Your task to perform on an android device: Search for the best value 4K TV on Best Buy Image 0: 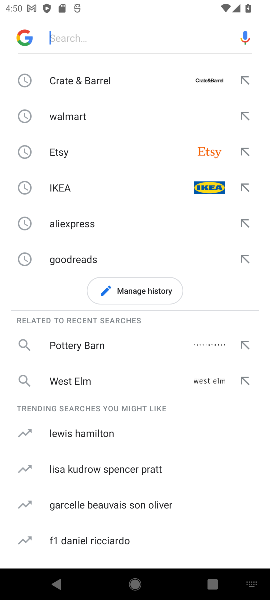
Step 0: click (96, 41)
Your task to perform on an android device: Search for the best value 4K TV on Best Buy Image 1: 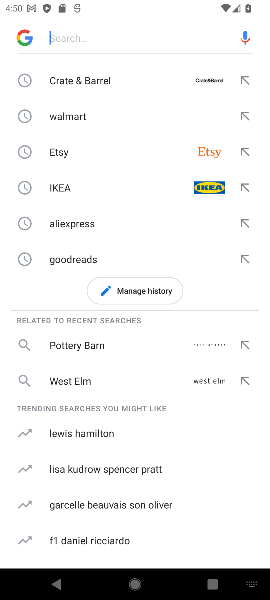
Step 1: type "best buy"
Your task to perform on an android device: Search for the best value 4K TV on Best Buy Image 2: 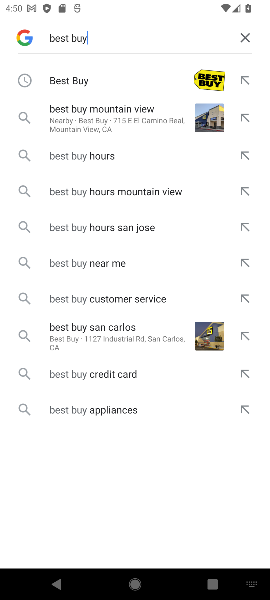
Step 2: click (84, 78)
Your task to perform on an android device: Search for the best value 4K TV on Best Buy Image 3: 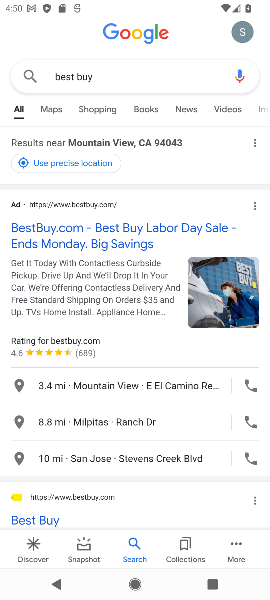
Step 3: drag from (133, 313) to (140, 158)
Your task to perform on an android device: Search for the best value 4K TV on Best Buy Image 4: 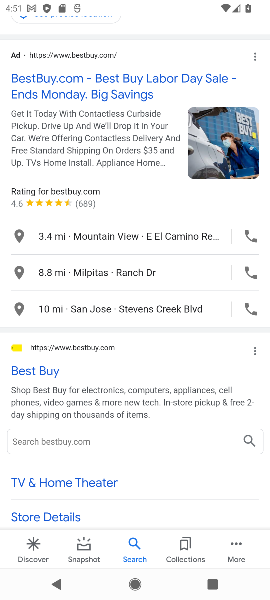
Step 4: click (56, 368)
Your task to perform on an android device: Search for the best value 4K TV on Best Buy Image 5: 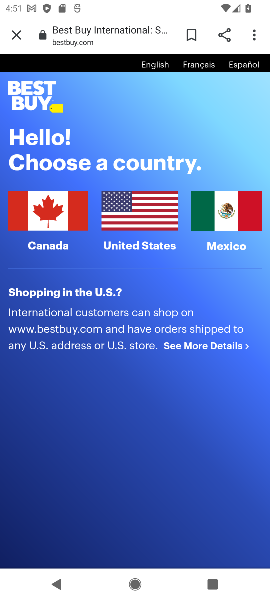
Step 5: click (137, 230)
Your task to perform on an android device: Search for the best value 4K TV on Best Buy Image 6: 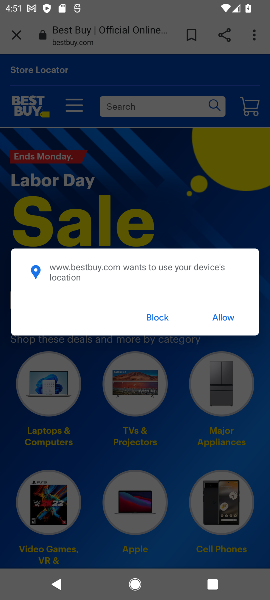
Step 6: click (230, 317)
Your task to perform on an android device: Search for the best value 4K TV on Best Buy Image 7: 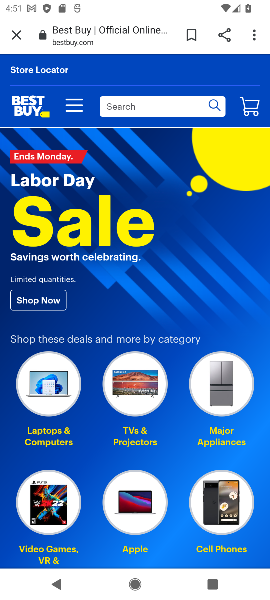
Step 7: click (141, 103)
Your task to perform on an android device: Search for the best value 4K TV on Best Buy Image 8: 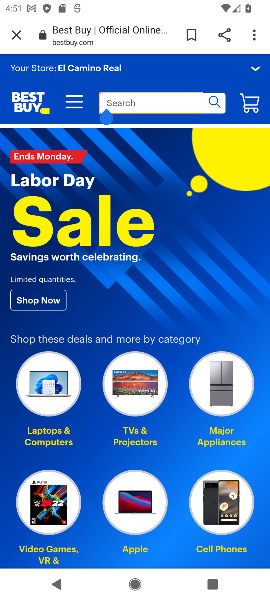
Step 8: type "4k tv"
Your task to perform on an android device: Search for the best value 4K TV on Best Buy Image 9: 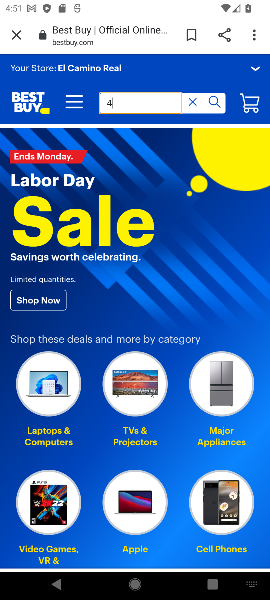
Step 9: type ""
Your task to perform on an android device: Search for the best value 4K TV on Best Buy Image 10: 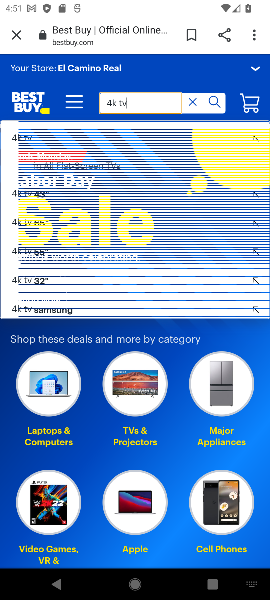
Step 10: press enter
Your task to perform on an android device: Search for the best value 4K TV on Best Buy Image 11: 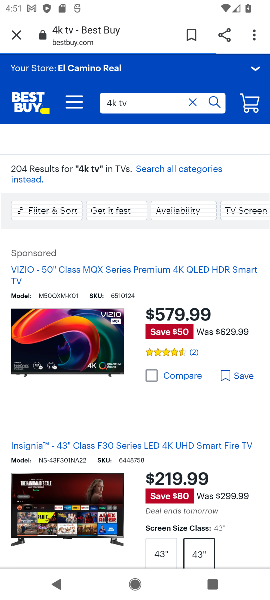
Step 11: click (71, 212)
Your task to perform on an android device: Search for the best value 4K TV on Best Buy Image 12: 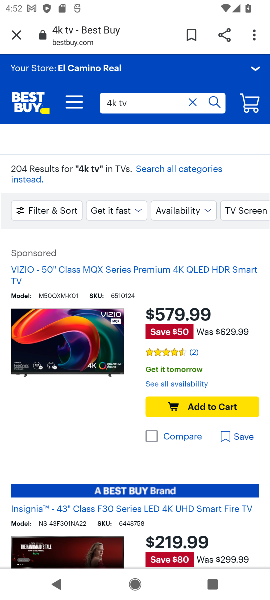
Step 12: click (71, 212)
Your task to perform on an android device: Search for the best value 4K TV on Best Buy Image 13: 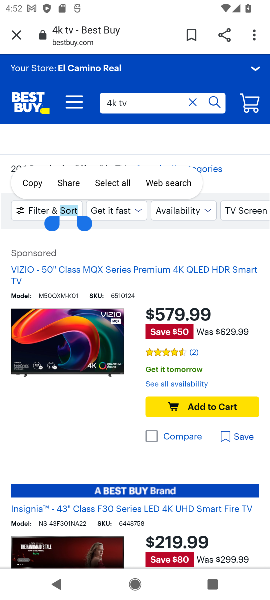
Step 13: click (65, 230)
Your task to perform on an android device: Search for the best value 4K TV on Best Buy Image 14: 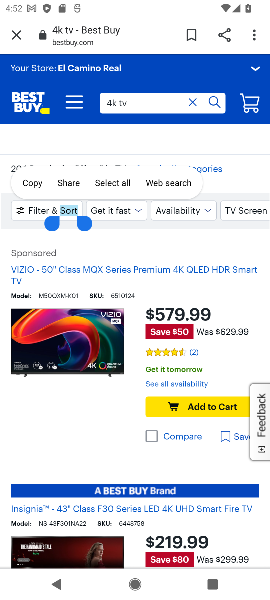
Step 14: click (31, 223)
Your task to perform on an android device: Search for the best value 4K TV on Best Buy Image 15: 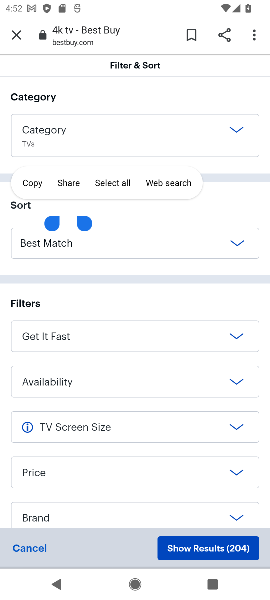
Step 15: click (225, 548)
Your task to perform on an android device: Search for the best value 4K TV on Best Buy Image 16: 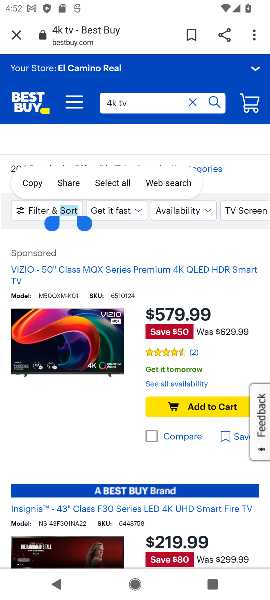
Step 16: click (195, 251)
Your task to perform on an android device: Search for the best value 4K TV on Best Buy Image 17: 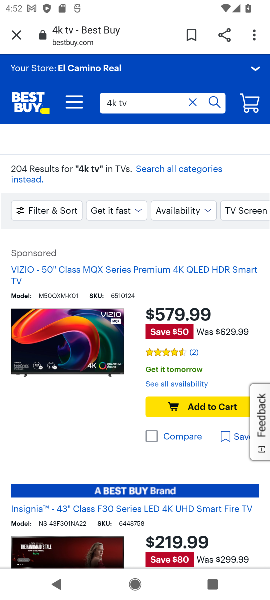
Step 17: drag from (196, 180) to (202, 112)
Your task to perform on an android device: Search for the best value 4K TV on Best Buy Image 18: 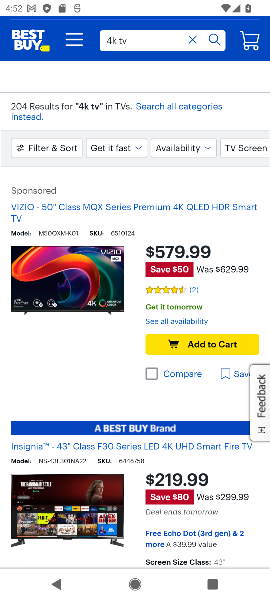
Step 18: drag from (226, 420) to (215, 211)
Your task to perform on an android device: Search for the best value 4K TV on Best Buy Image 19: 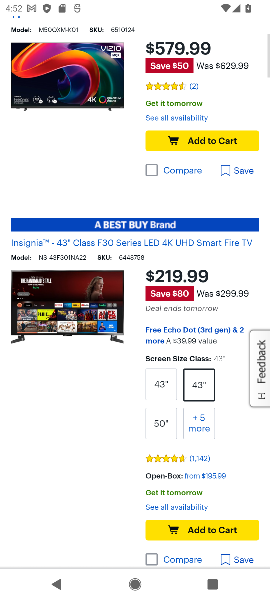
Step 19: drag from (229, 214) to (215, 73)
Your task to perform on an android device: Search for the best value 4K TV on Best Buy Image 20: 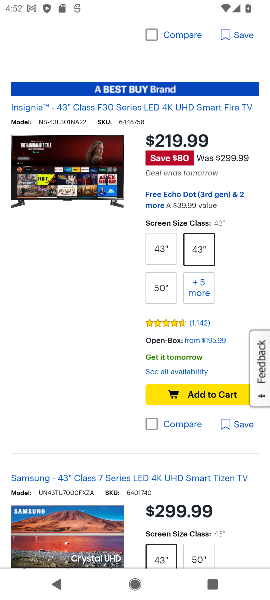
Step 20: drag from (253, 455) to (227, 170)
Your task to perform on an android device: Search for the best value 4K TV on Best Buy Image 21: 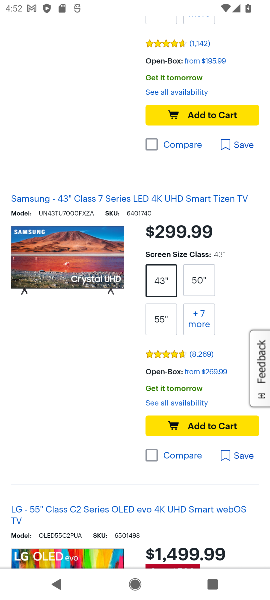
Step 21: drag from (24, 182) to (31, 109)
Your task to perform on an android device: Search for the best value 4K TV on Best Buy Image 22: 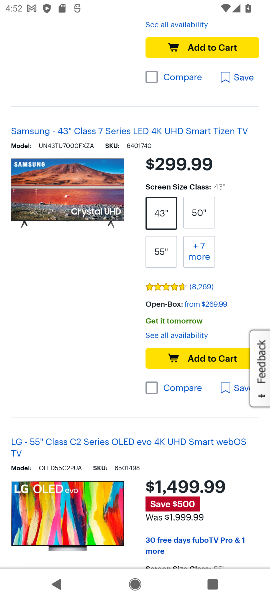
Step 22: click (15, 373)
Your task to perform on an android device: Search for the best value 4K TV on Best Buy Image 23: 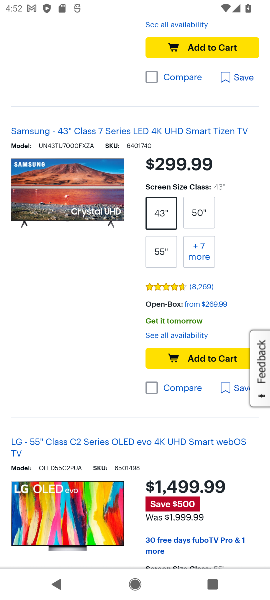
Step 23: task complete